Your task to perform on an android device: Open network settings Image 0: 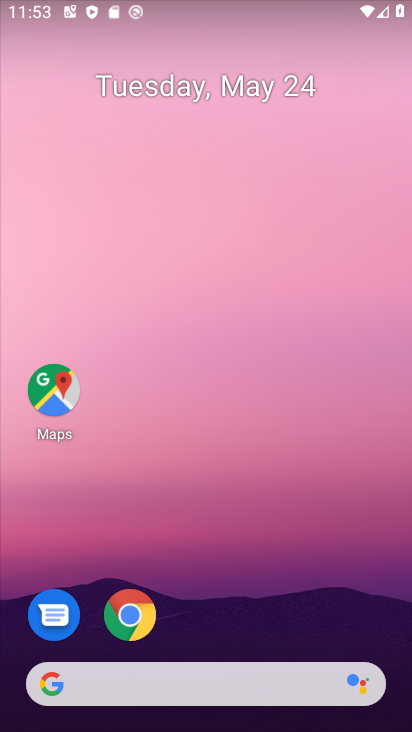
Step 0: drag from (263, 604) to (219, 129)
Your task to perform on an android device: Open network settings Image 1: 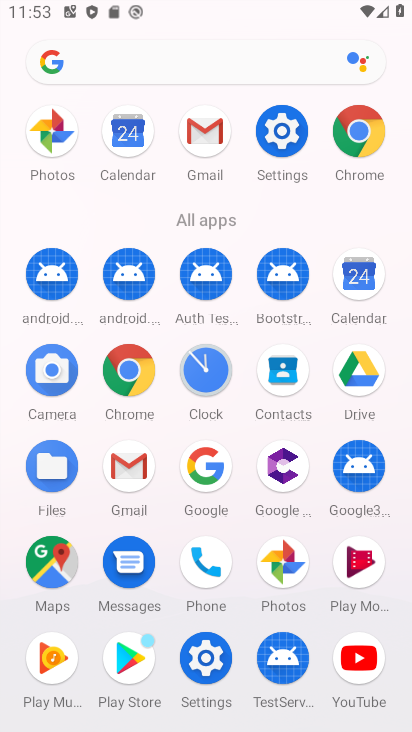
Step 1: click (284, 130)
Your task to perform on an android device: Open network settings Image 2: 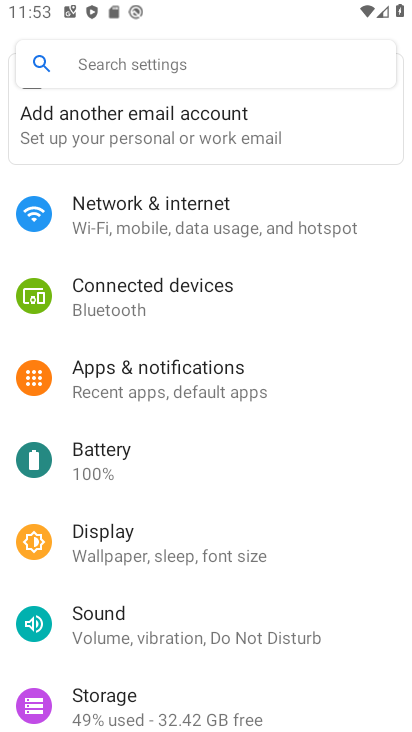
Step 2: click (188, 218)
Your task to perform on an android device: Open network settings Image 3: 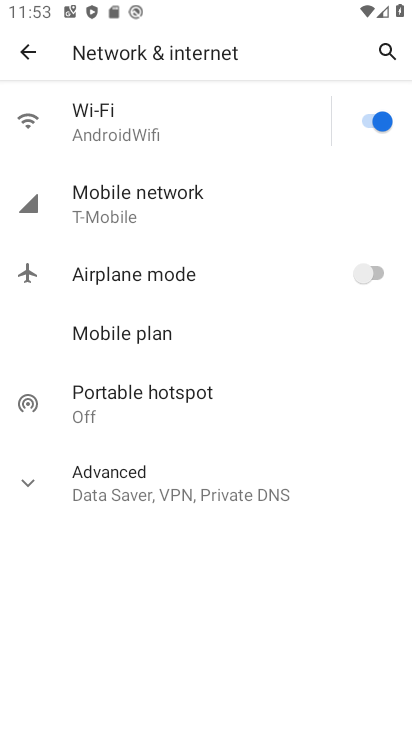
Step 3: click (145, 140)
Your task to perform on an android device: Open network settings Image 4: 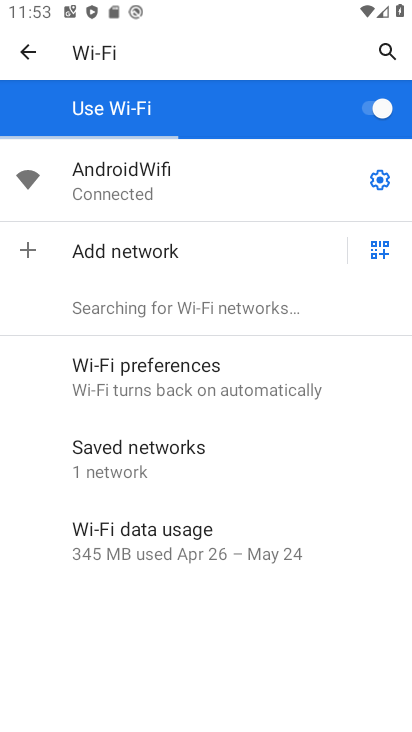
Step 4: click (380, 178)
Your task to perform on an android device: Open network settings Image 5: 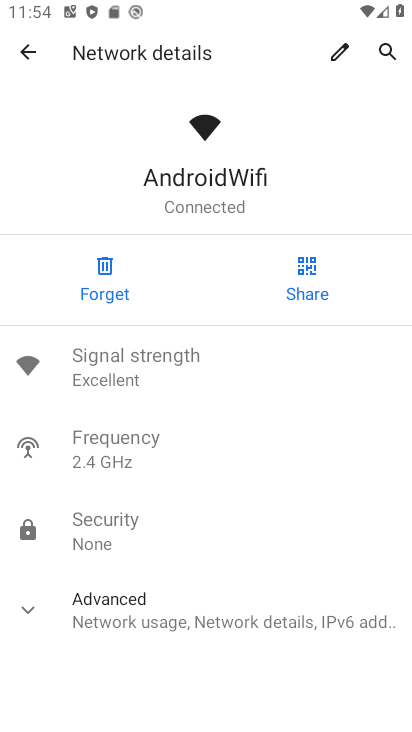
Step 5: task complete